Your task to perform on an android device: check android version Image 0: 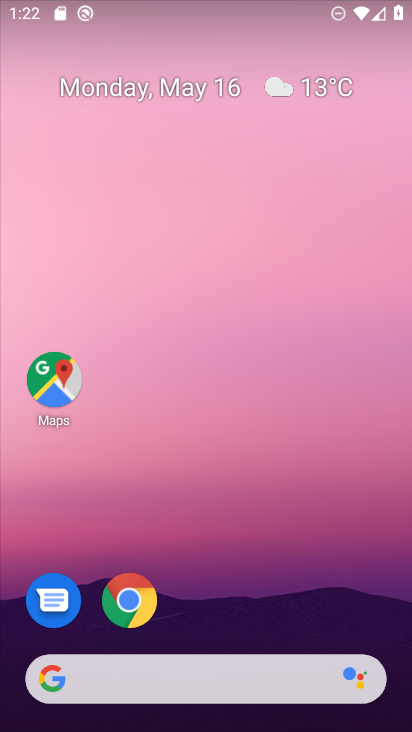
Step 0: drag from (230, 628) to (240, 19)
Your task to perform on an android device: check android version Image 1: 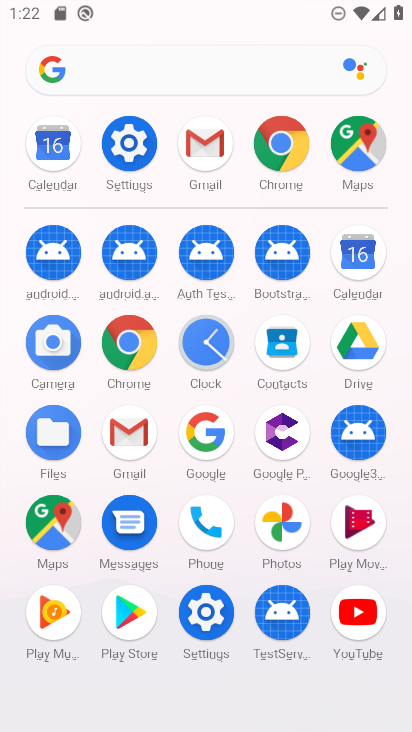
Step 1: click (127, 139)
Your task to perform on an android device: check android version Image 2: 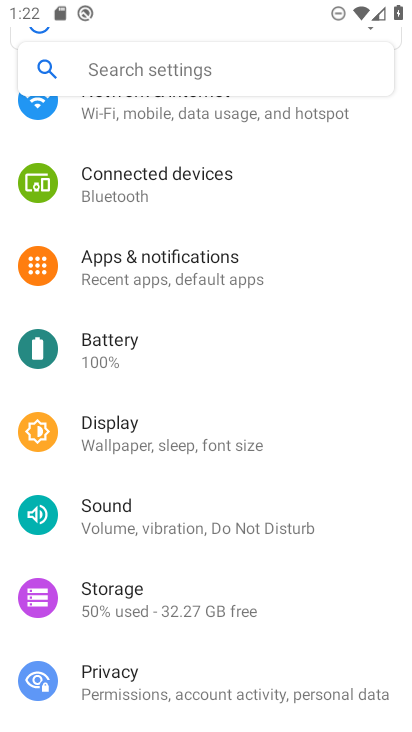
Step 2: drag from (210, 661) to (220, 76)
Your task to perform on an android device: check android version Image 3: 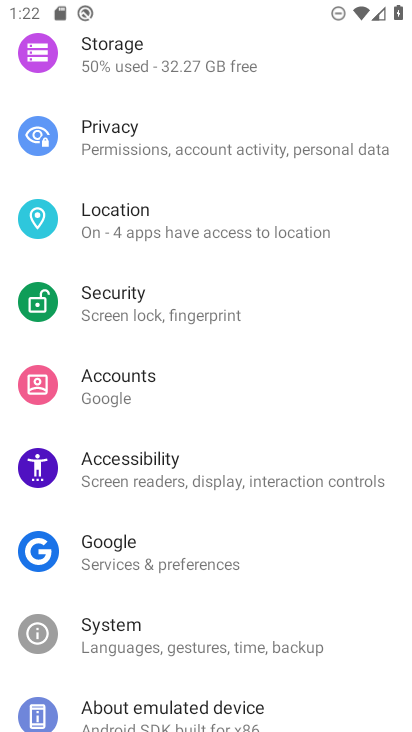
Step 3: drag from (198, 669) to (214, 172)
Your task to perform on an android device: check android version Image 4: 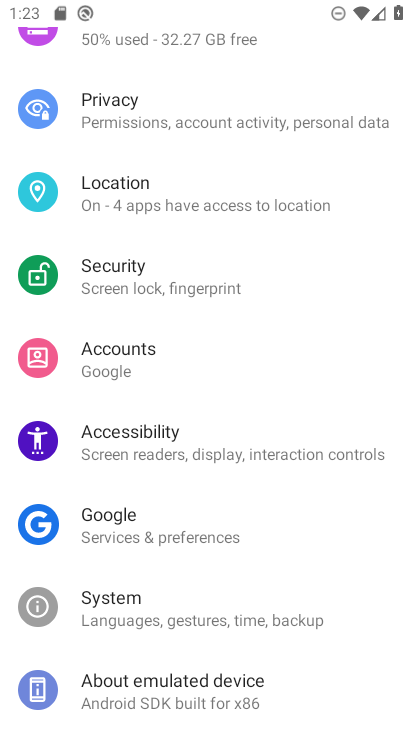
Step 4: click (271, 687)
Your task to perform on an android device: check android version Image 5: 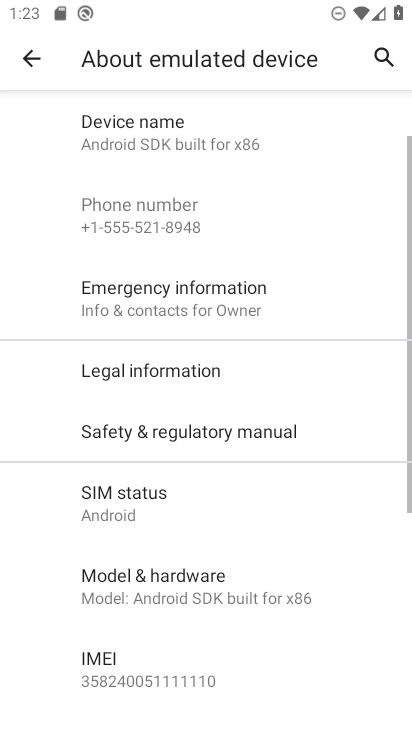
Step 5: drag from (185, 591) to (171, 77)
Your task to perform on an android device: check android version Image 6: 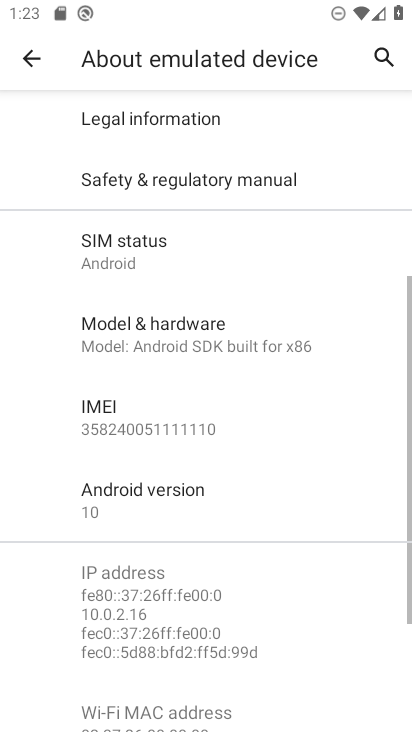
Step 6: click (131, 510)
Your task to perform on an android device: check android version Image 7: 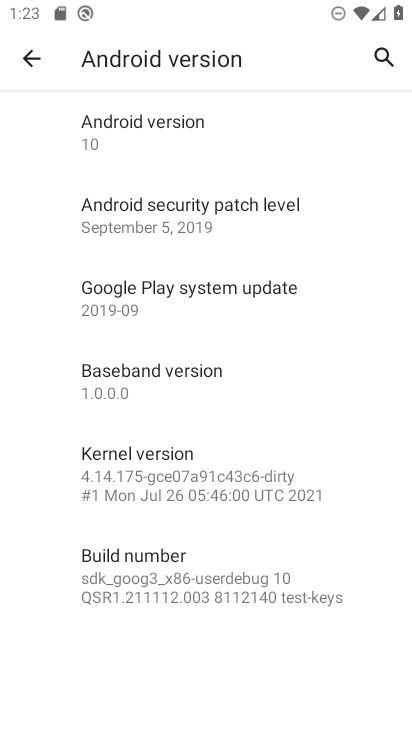
Step 7: click (118, 138)
Your task to perform on an android device: check android version Image 8: 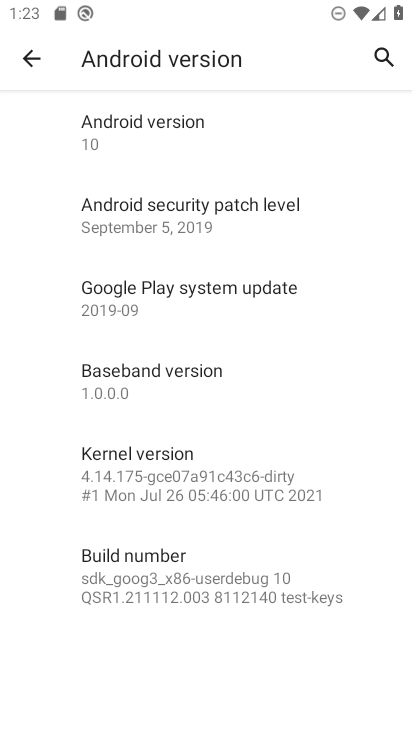
Step 8: task complete